Your task to perform on an android device: Open Youtube and go to the subscriptions tab Image 0: 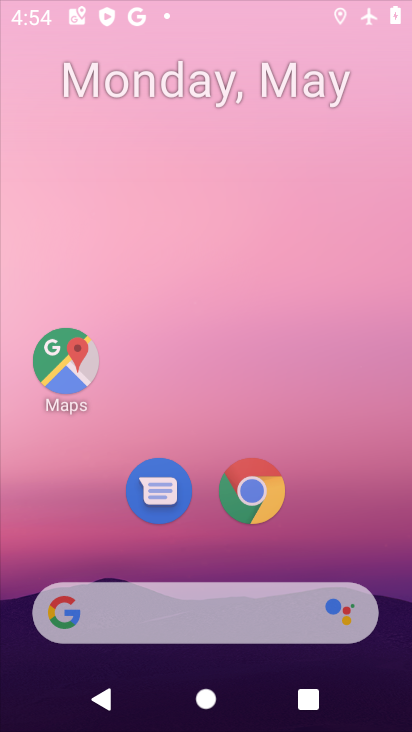
Step 0: drag from (380, 186) to (387, 104)
Your task to perform on an android device: Open Youtube and go to the subscriptions tab Image 1: 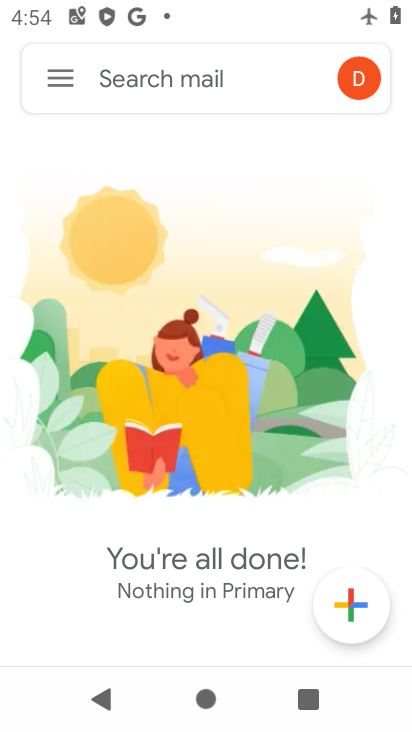
Step 1: press home button
Your task to perform on an android device: Open Youtube and go to the subscriptions tab Image 2: 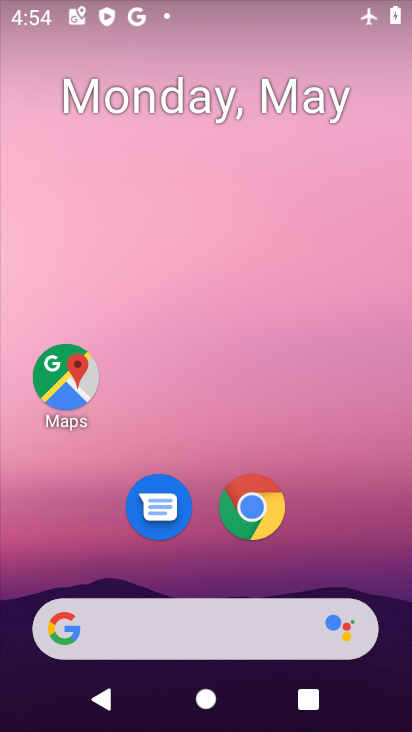
Step 2: drag from (341, 572) to (371, 58)
Your task to perform on an android device: Open Youtube and go to the subscriptions tab Image 3: 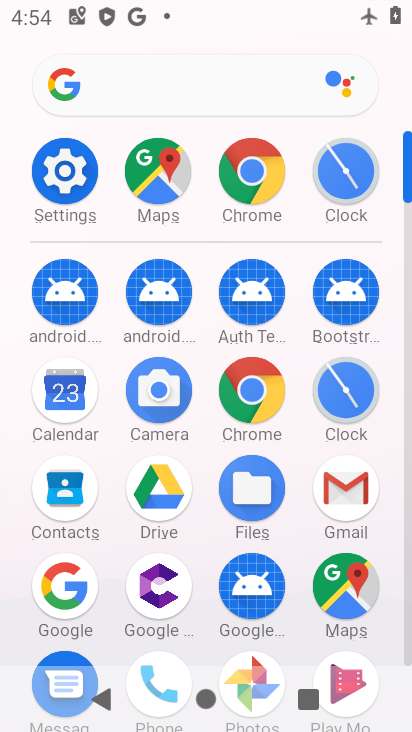
Step 3: drag from (397, 613) to (404, 245)
Your task to perform on an android device: Open Youtube and go to the subscriptions tab Image 4: 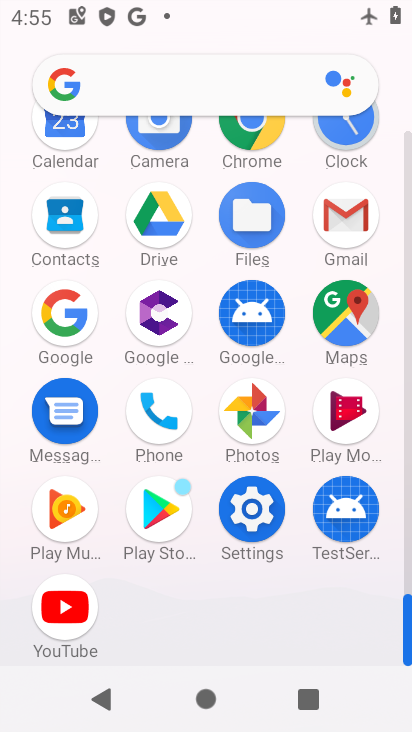
Step 4: click (72, 629)
Your task to perform on an android device: Open Youtube and go to the subscriptions tab Image 5: 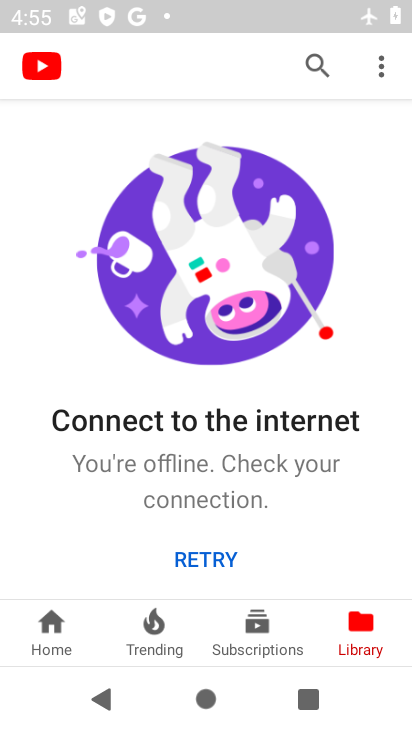
Step 5: click (265, 630)
Your task to perform on an android device: Open Youtube and go to the subscriptions tab Image 6: 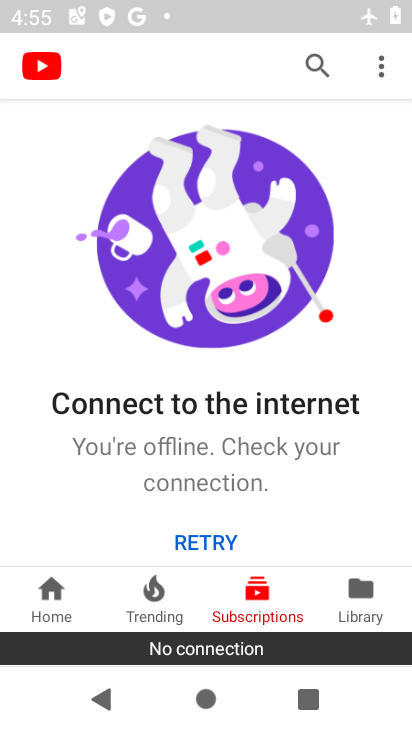
Step 6: task complete